Your task to perform on an android device: open wifi settings Image 0: 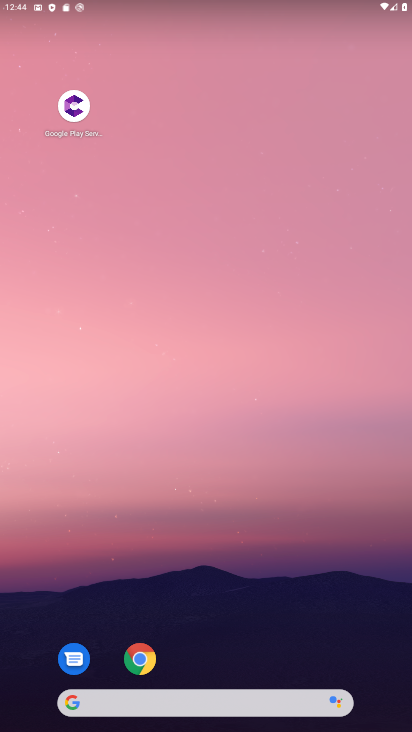
Step 0: drag from (274, 554) to (289, 296)
Your task to perform on an android device: open wifi settings Image 1: 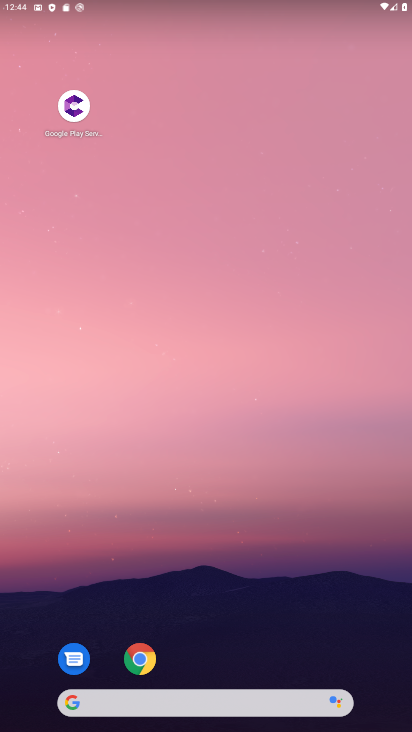
Step 1: drag from (172, 634) to (213, 6)
Your task to perform on an android device: open wifi settings Image 2: 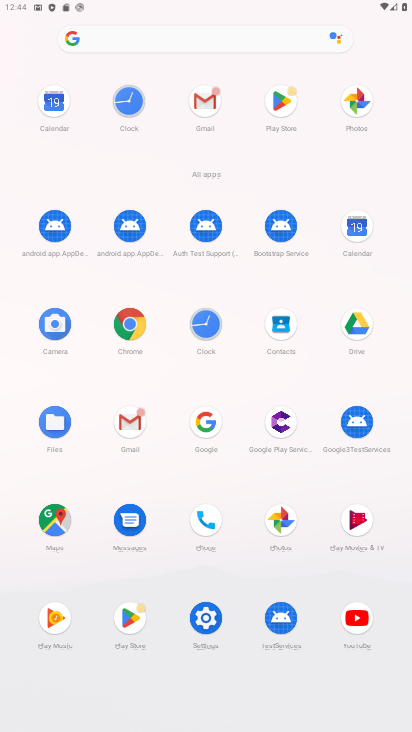
Step 2: click (203, 622)
Your task to perform on an android device: open wifi settings Image 3: 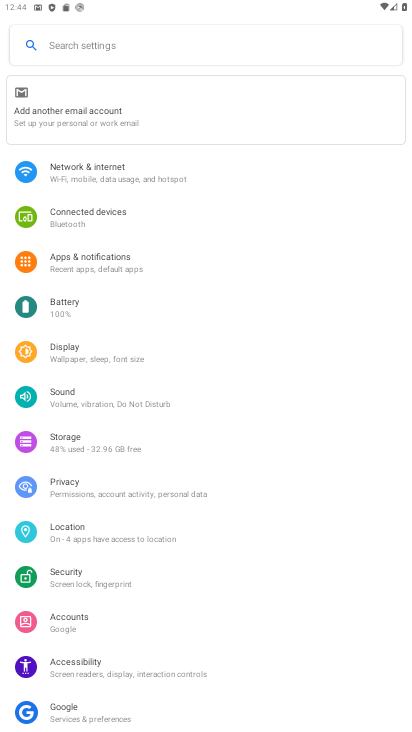
Step 3: click (132, 174)
Your task to perform on an android device: open wifi settings Image 4: 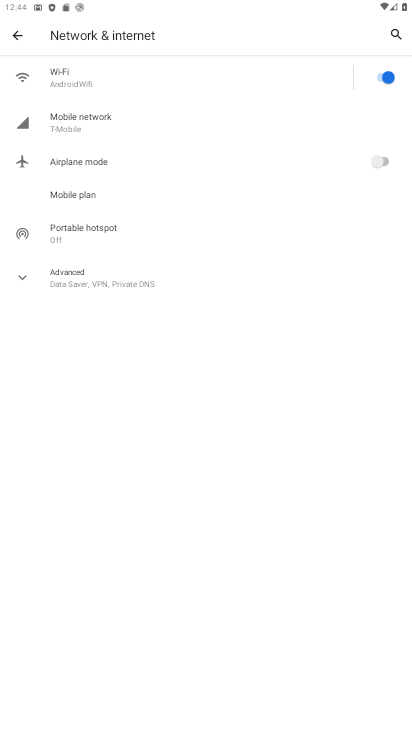
Step 4: task complete